Your task to perform on an android device: Go to Amazon Image 0: 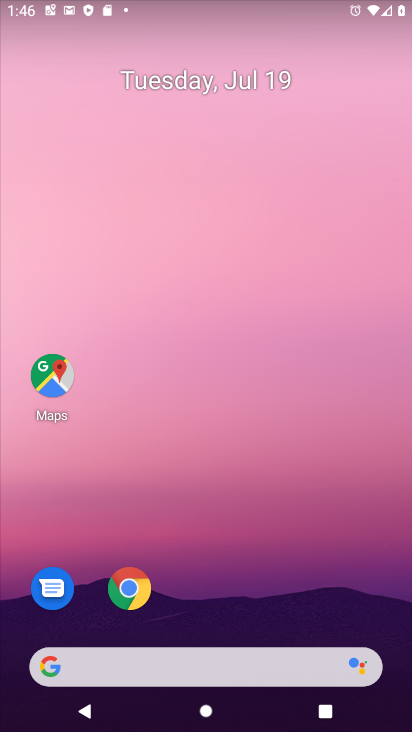
Step 0: drag from (350, 605) to (179, 26)
Your task to perform on an android device: Go to Amazon Image 1: 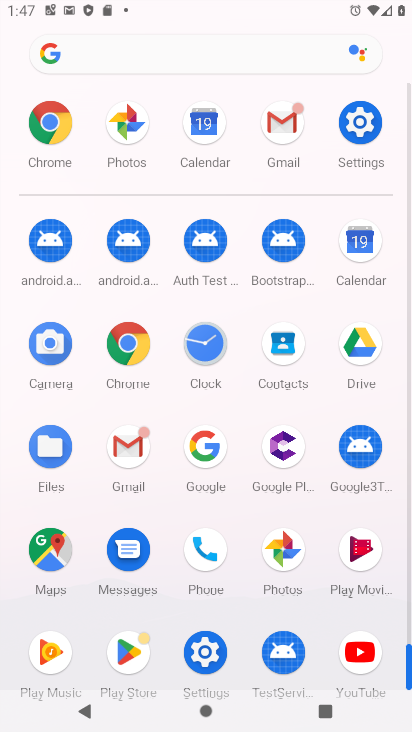
Step 1: click (210, 456)
Your task to perform on an android device: Go to Amazon Image 2: 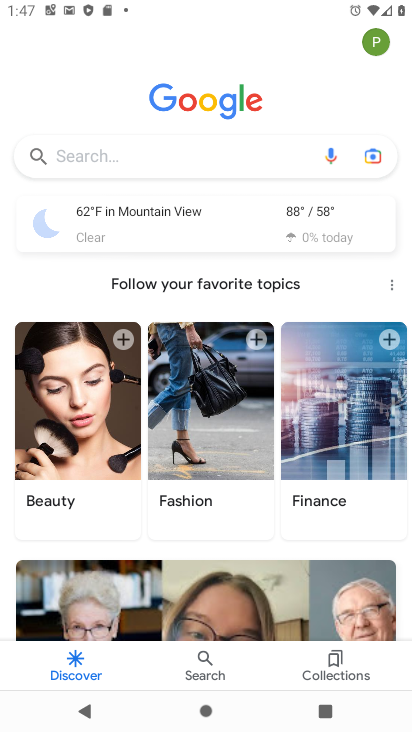
Step 2: click (129, 157)
Your task to perform on an android device: Go to Amazon Image 3: 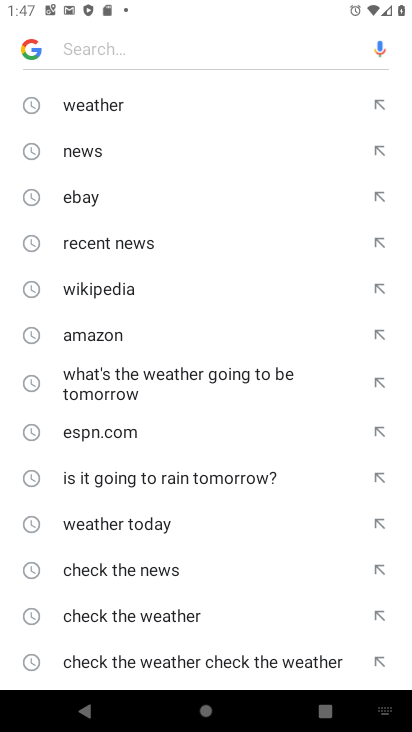
Step 3: click (127, 330)
Your task to perform on an android device: Go to Amazon Image 4: 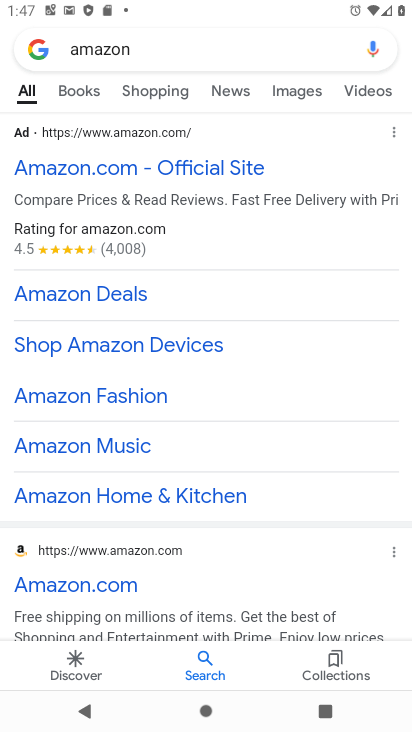
Step 4: task complete